Your task to perform on an android device: Go to Yahoo.com Image 0: 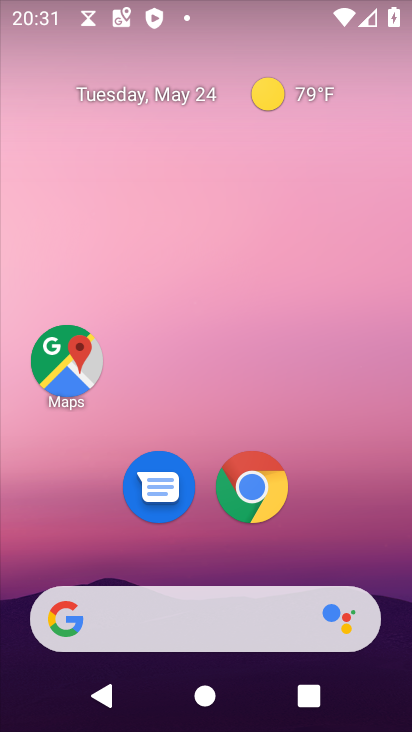
Step 0: press home button
Your task to perform on an android device: Go to Yahoo.com Image 1: 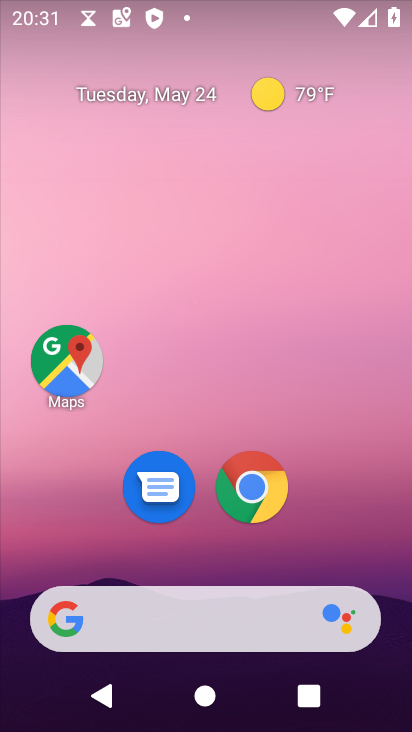
Step 1: click (248, 486)
Your task to perform on an android device: Go to Yahoo.com Image 2: 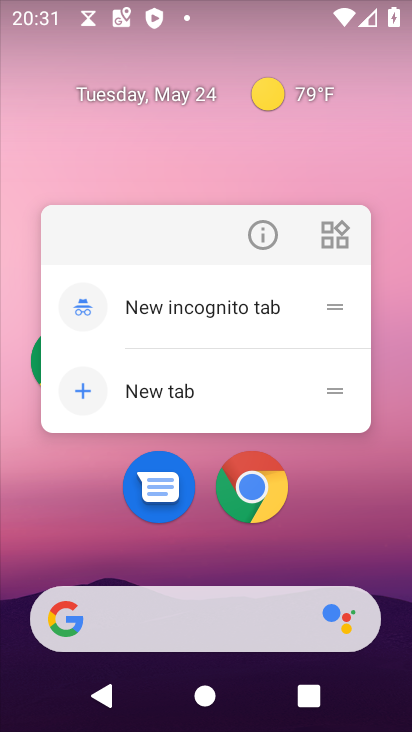
Step 2: click (249, 483)
Your task to perform on an android device: Go to Yahoo.com Image 3: 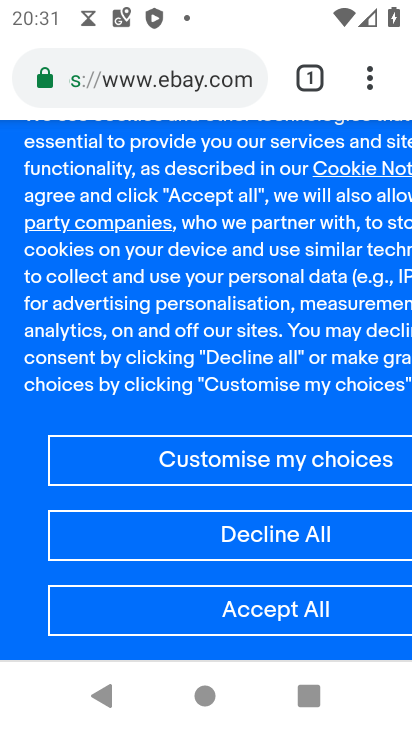
Step 3: click (307, 83)
Your task to perform on an android device: Go to Yahoo.com Image 4: 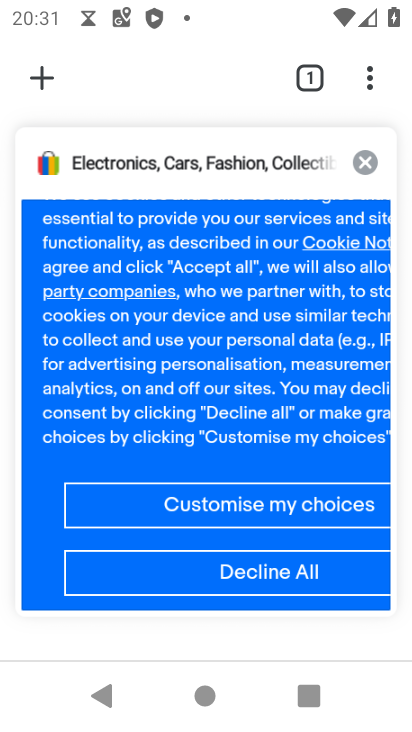
Step 4: click (367, 159)
Your task to perform on an android device: Go to Yahoo.com Image 5: 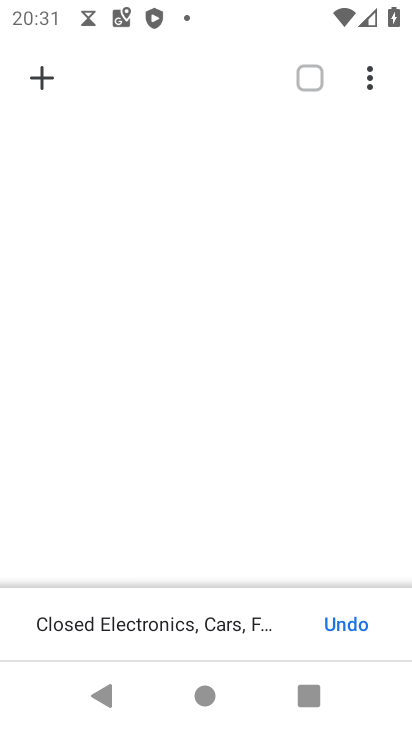
Step 5: click (37, 72)
Your task to perform on an android device: Go to Yahoo.com Image 6: 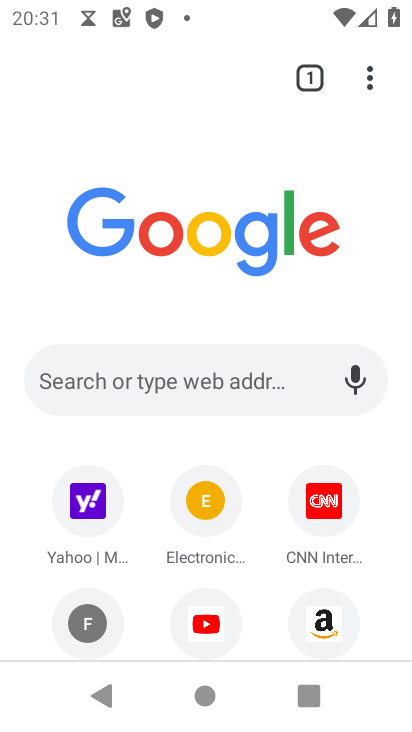
Step 6: click (82, 490)
Your task to perform on an android device: Go to Yahoo.com Image 7: 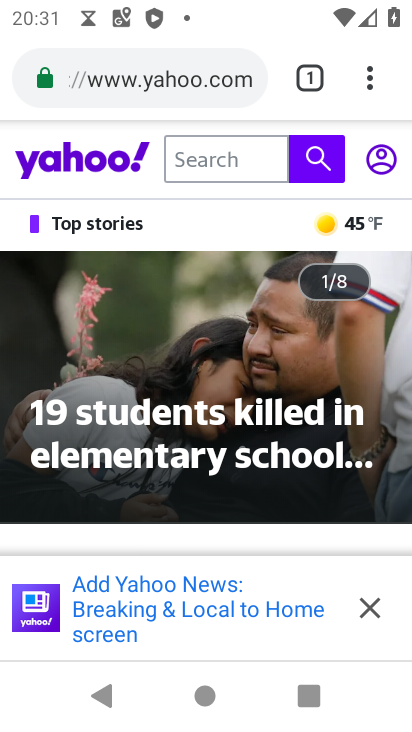
Step 7: click (372, 608)
Your task to perform on an android device: Go to Yahoo.com Image 8: 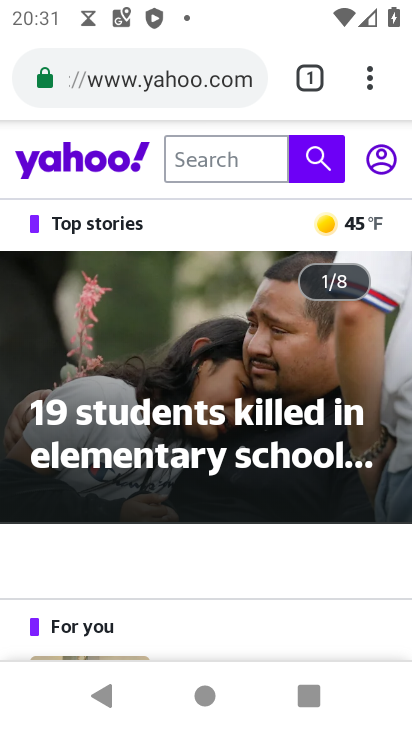
Step 8: task complete